Your task to perform on an android device: Turn on the flashlight Image 0: 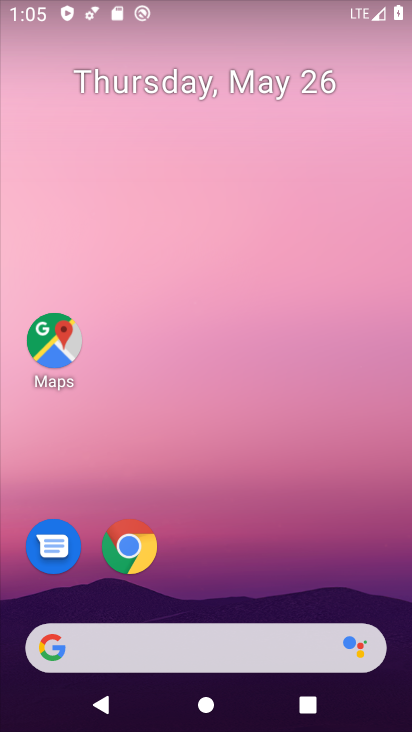
Step 0: drag from (268, 138) to (195, 718)
Your task to perform on an android device: Turn on the flashlight Image 1: 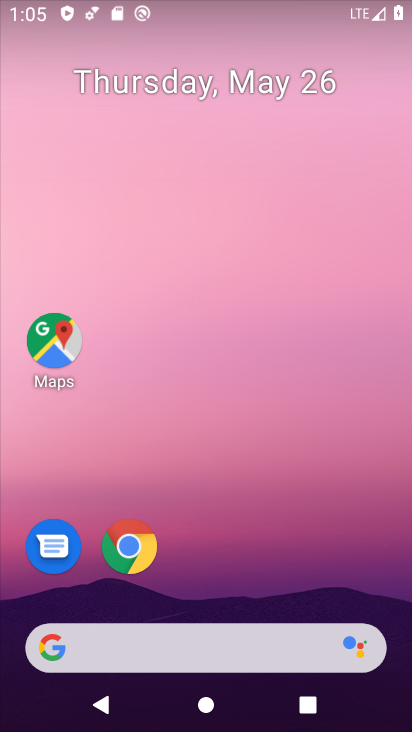
Step 1: task complete